Your task to perform on an android device: open app "Mercado Libre" Image 0: 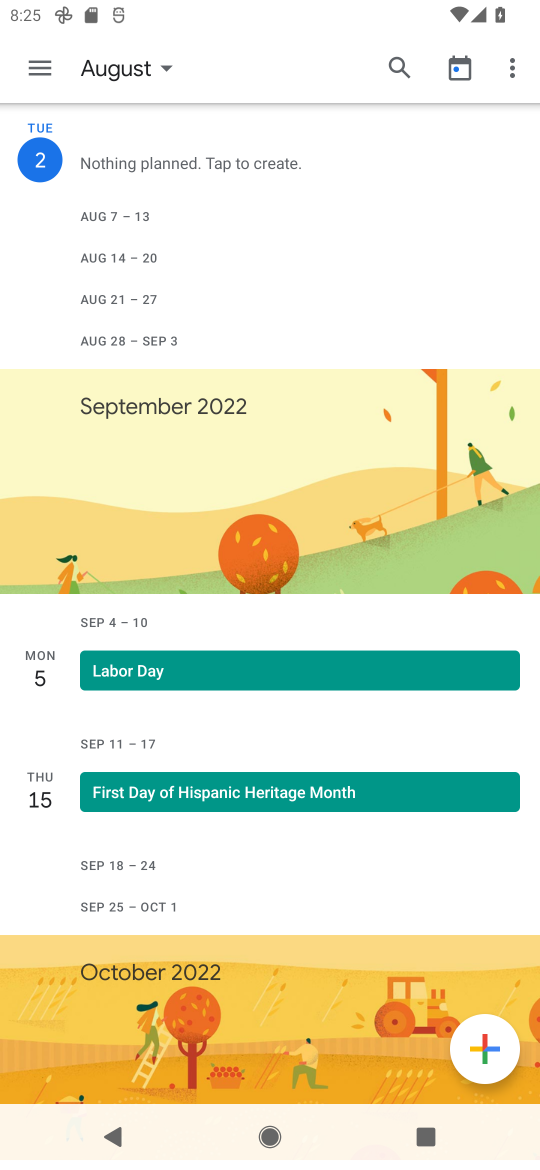
Step 0: press home button
Your task to perform on an android device: open app "Mercado Libre" Image 1: 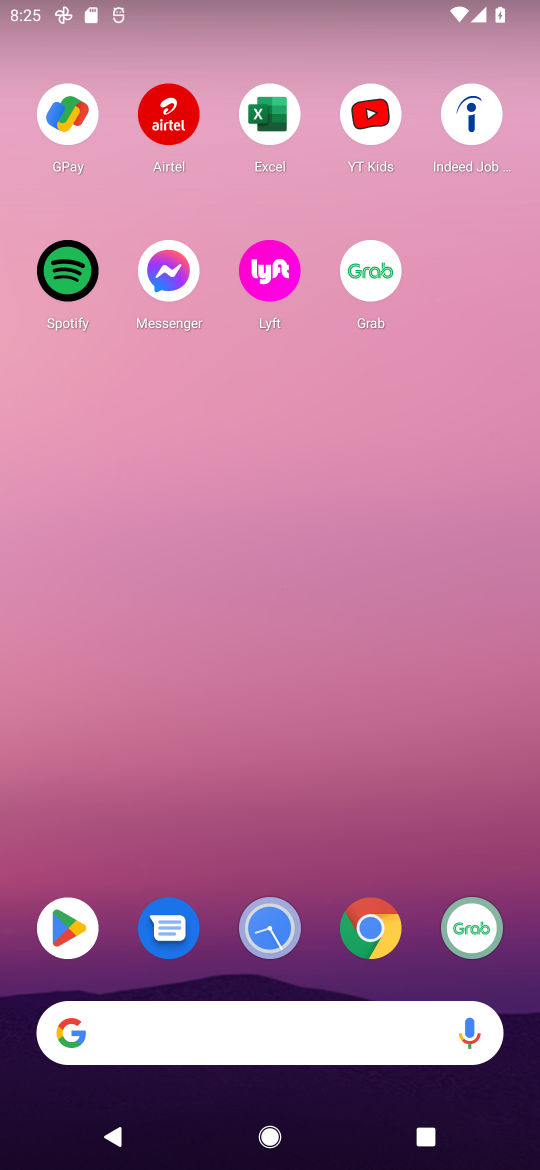
Step 1: click (61, 922)
Your task to perform on an android device: open app "Mercado Libre" Image 2: 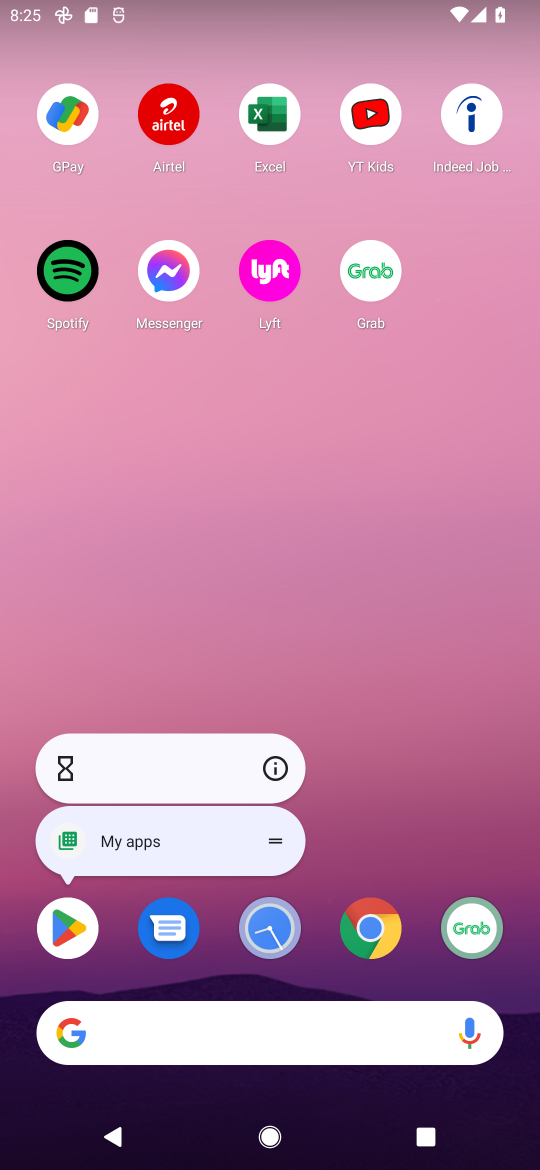
Step 2: click (61, 922)
Your task to perform on an android device: open app "Mercado Libre" Image 3: 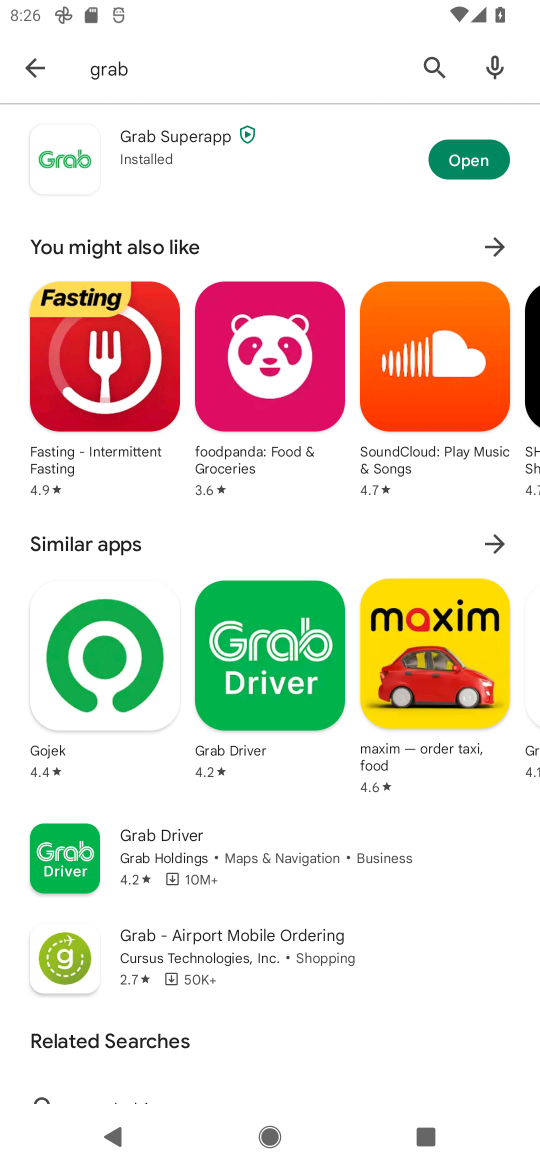
Step 3: click (437, 59)
Your task to perform on an android device: open app "Mercado Libre" Image 4: 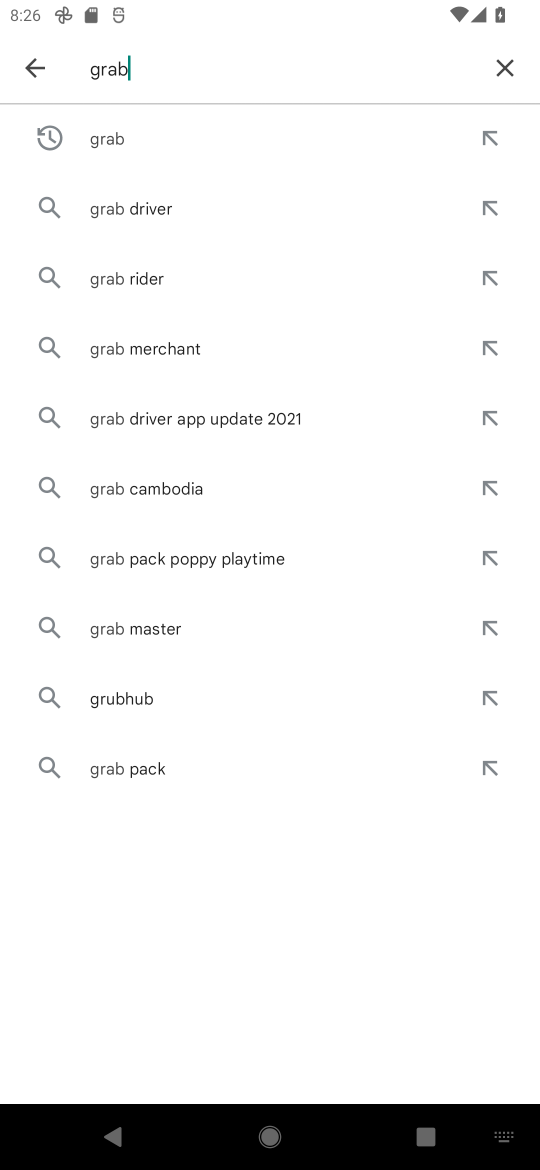
Step 4: click (517, 65)
Your task to perform on an android device: open app "Mercado Libre" Image 5: 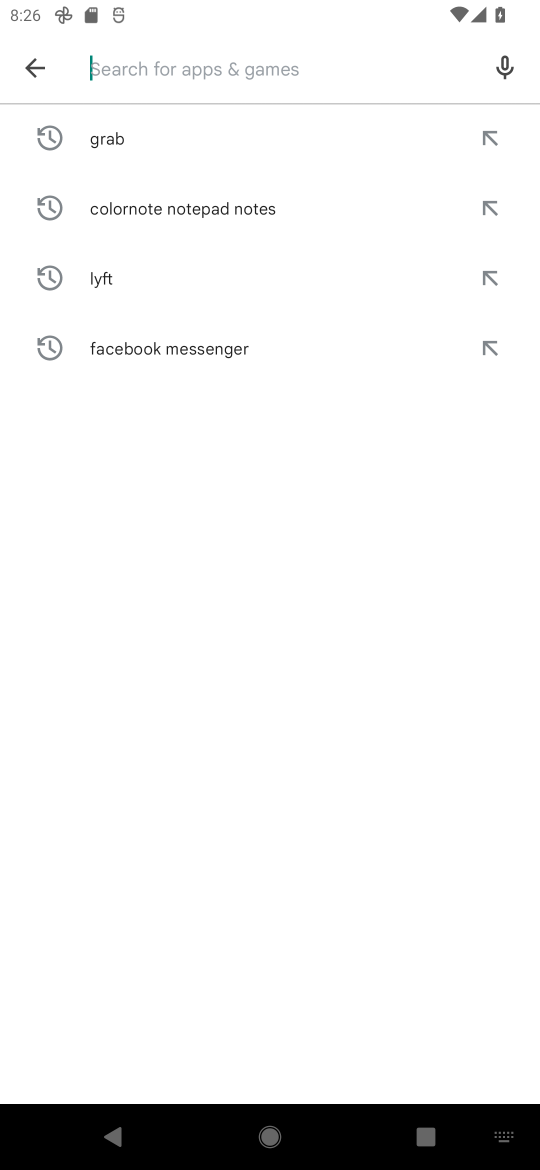
Step 5: type "mercado "
Your task to perform on an android device: open app "Mercado Libre" Image 6: 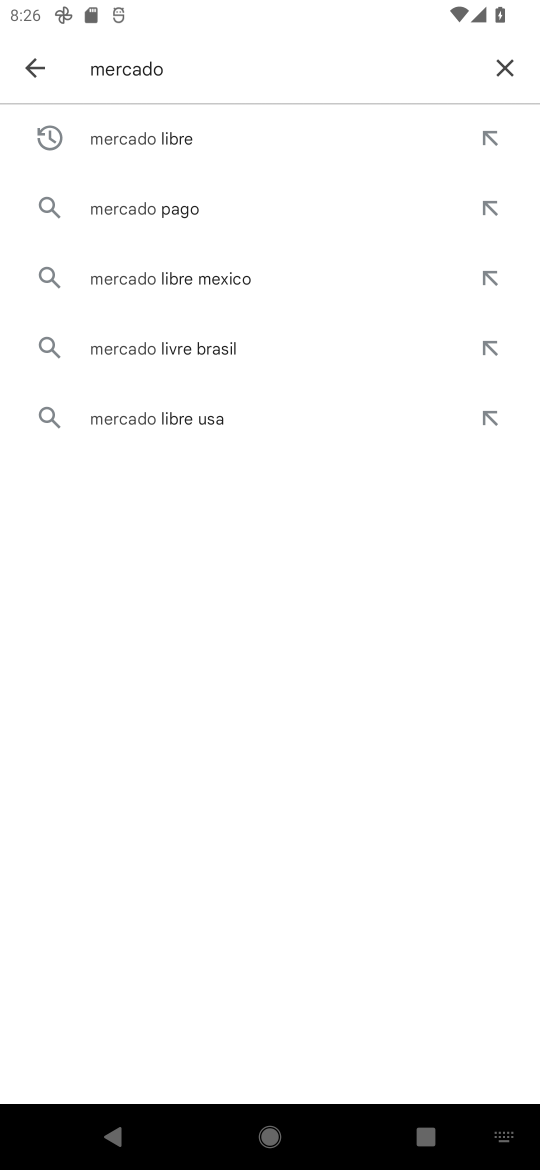
Step 6: click (322, 143)
Your task to perform on an android device: open app "Mercado Libre" Image 7: 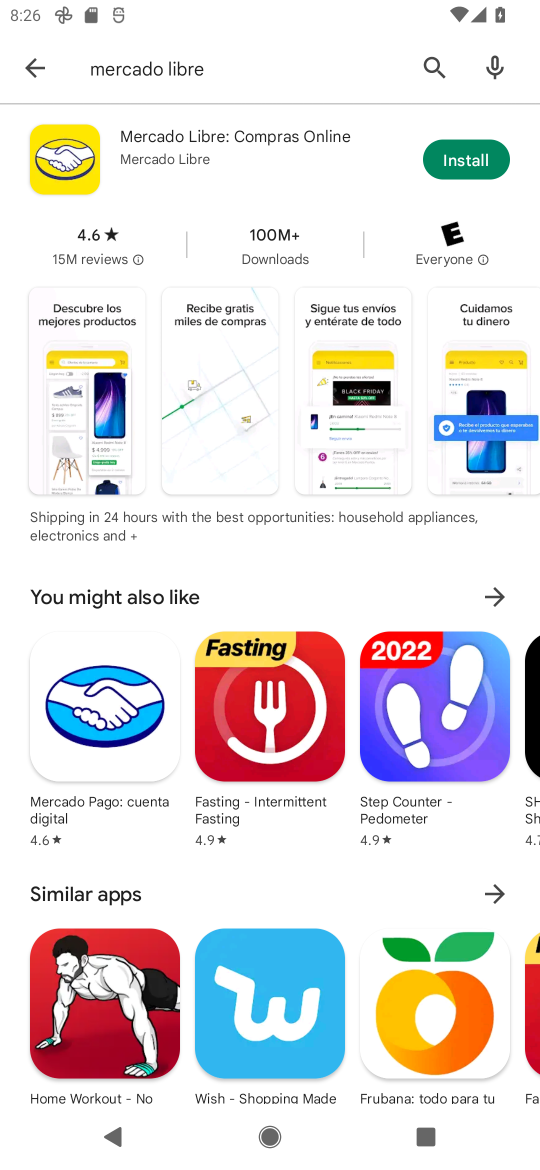
Step 7: task complete